Your task to perform on an android device: Open internet settings Image 0: 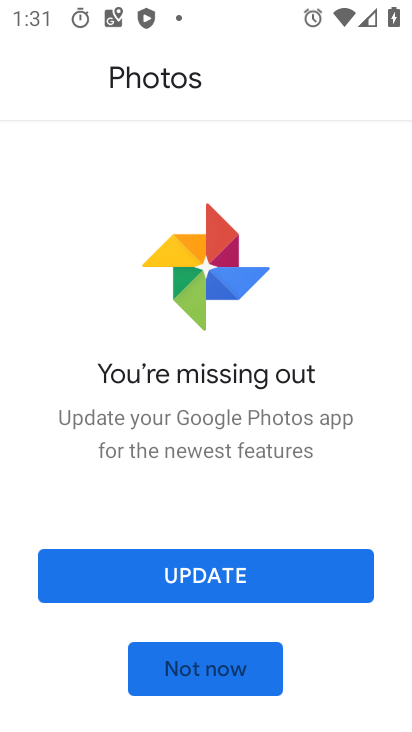
Step 0: press home button
Your task to perform on an android device: Open internet settings Image 1: 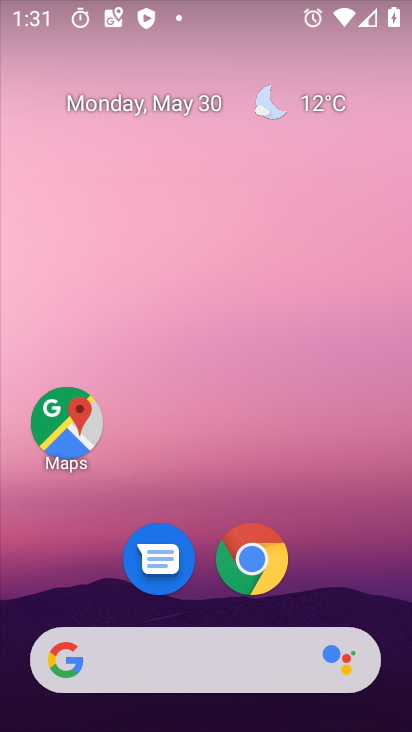
Step 1: drag from (154, 495) to (258, 1)
Your task to perform on an android device: Open internet settings Image 2: 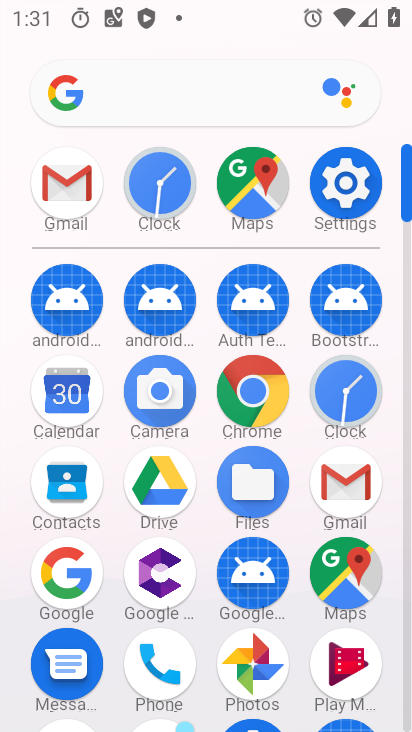
Step 2: click (351, 188)
Your task to perform on an android device: Open internet settings Image 3: 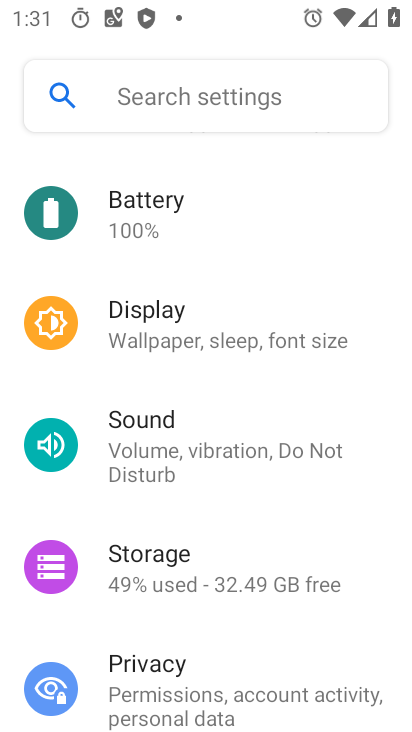
Step 3: drag from (277, 214) to (215, 621)
Your task to perform on an android device: Open internet settings Image 4: 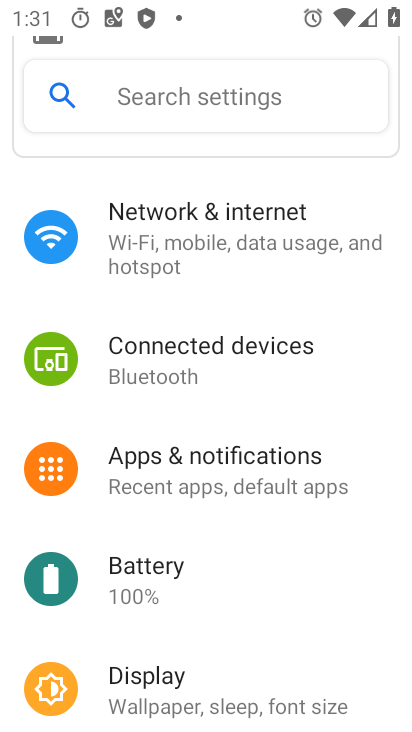
Step 4: click (201, 219)
Your task to perform on an android device: Open internet settings Image 5: 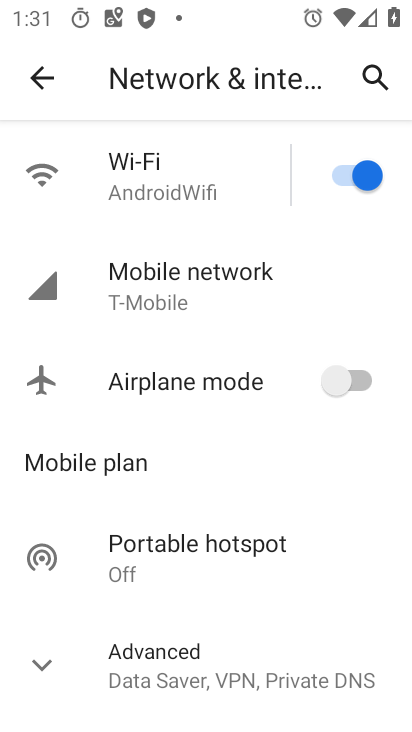
Step 5: task complete